Your task to perform on an android device: See recent photos Image 0: 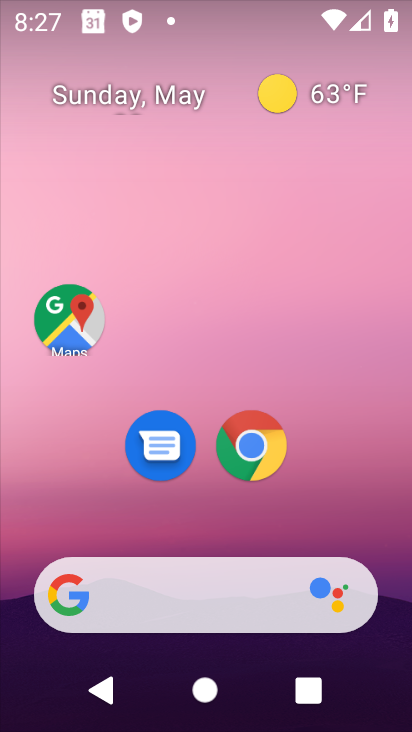
Step 0: drag from (377, 546) to (371, 250)
Your task to perform on an android device: See recent photos Image 1: 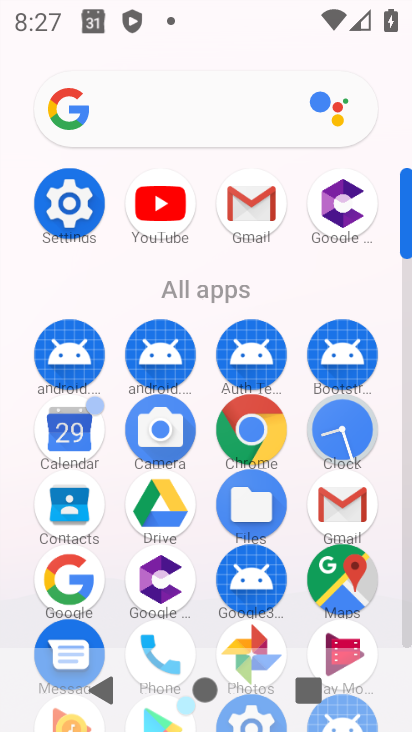
Step 1: drag from (386, 651) to (384, 398)
Your task to perform on an android device: See recent photos Image 2: 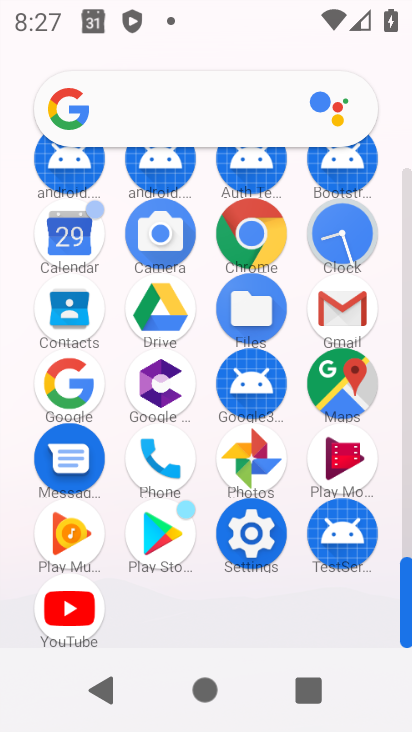
Step 2: click (265, 465)
Your task to perform on an android device: See recent photos Image 3: 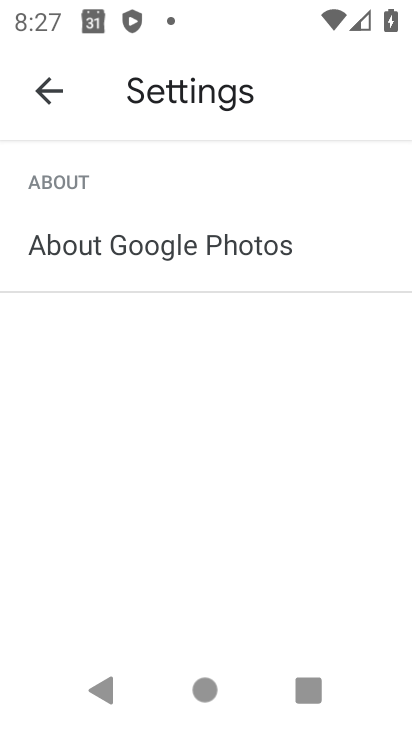
Step 3: click (50, 91)
Your task to perform on an android device: See recent photos Image 4: 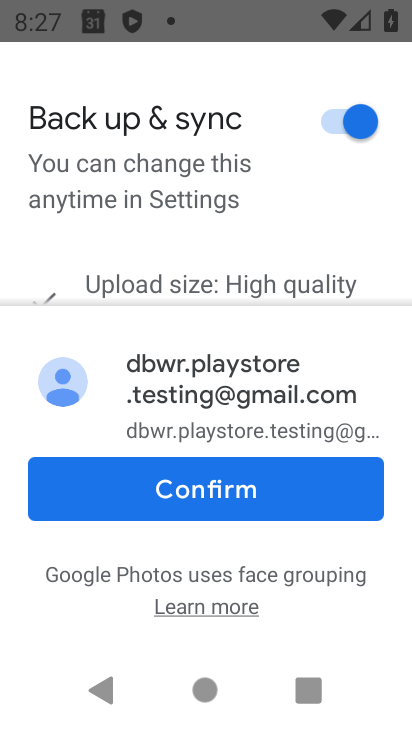
Step 4: click (116, 514)
Your task to perform on an android device: See recent photos Image 5: 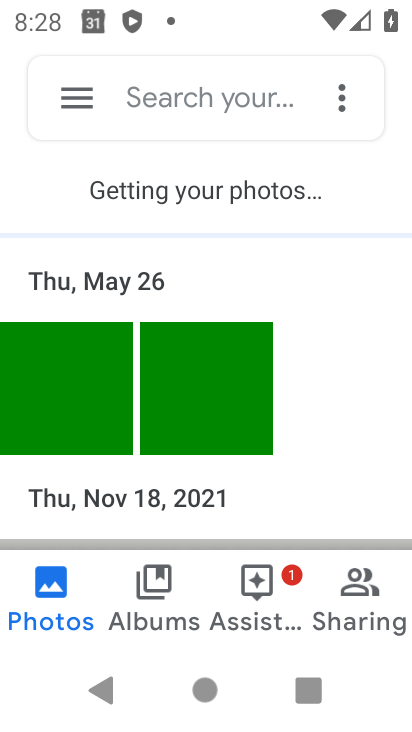
Step 5: task complete